Your task to perform on an android device: Search for "panasonic triple a" on ebay, select the first entry, and add it to the cart. Image 0: 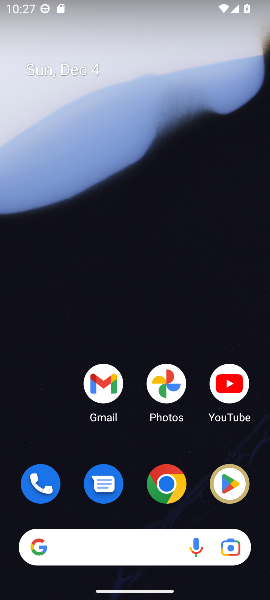
Step 0: click (167, 485)
Your task to perform on an android device: Search for "panasonic triple a" on ebay, select the first entry, and add it to the cart. Image 1: 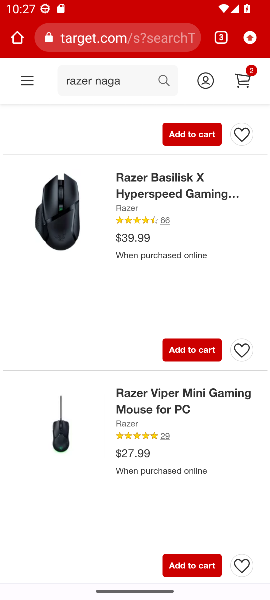
Step 1: click (102, 40)
Your task to perform on an android device: Search for "panasonic triple a" on ebay, select the first entry, and add it to the cart. Image 2: 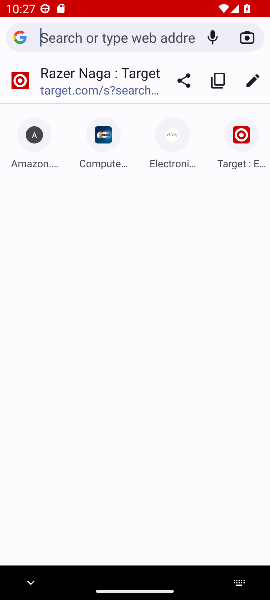
Step 2: type "ebay.com"
Your task to perform on an android device: Search for "panasonic triple a" on ebay, select the first entry, and add it to the cart. Image 3: 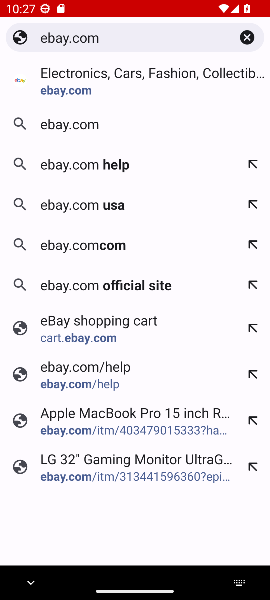
Step 3: click (61, 95)
Your task to perform on an android device: Search for "panasonic triple a" on ebay, select the first entry, and add it to the cart. Image 4: 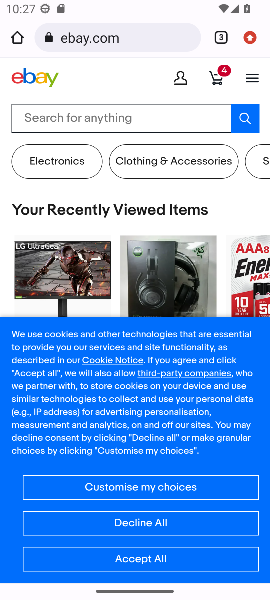
Step 4: click (98, 125)
Your task to perform on an android device: Search for "panasonic triple a" on ebay, select the first entry, and add it to the cart. Image 5: 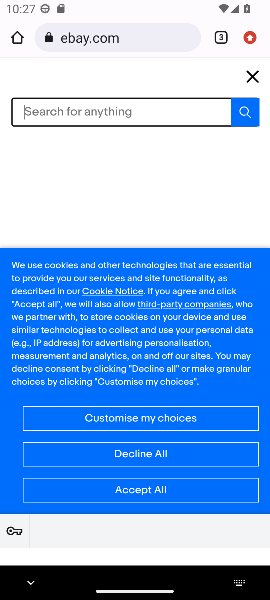
Step 5: type "panasonic triple a"
Your task to perform on an android device: Search for "panasonic triple a" on ebay, select the first entry, and add it to the cart. Image 6: 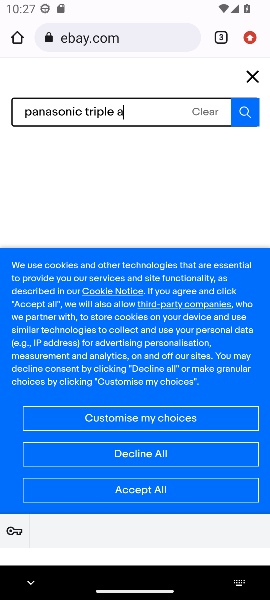
Step 6: click (247, 112)
Your task to perform on an android device: Search for "panasonic triple a" on ebay, select the first entry, and add it to the cart. Image 7: 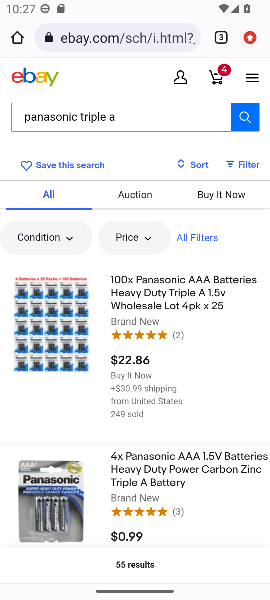
Step 7: click (141, 292)
Your task to perform on an android device: Search for "panasonic triple a" on ebay, select the first entry, and add it to the cart. Image 8: 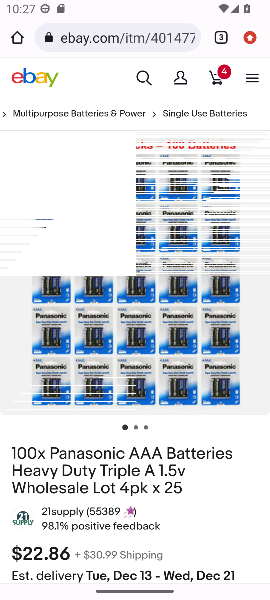
Step 8: drag from (203, 507) to (191, 300)
Your task to perform on an android device: Search for "panasonic triple a" on ebay, select the first entry, and add it to the cart. Image 9: 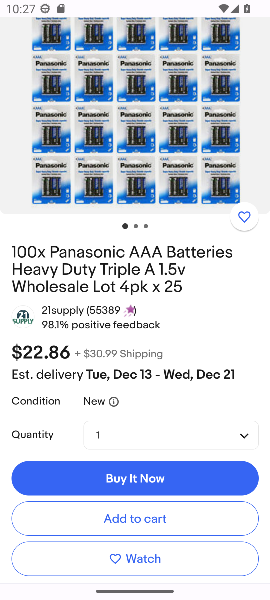
Step 9: click (129, 520)
Your task to perform on an android device: Search for "panasonic triple a" on ebay, select the first entry, and add it to the cart. Image 10: 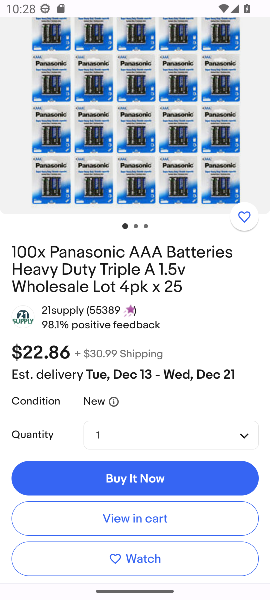
Step 10: task complete